Your task to perform on an android device: check data usage Image 0: 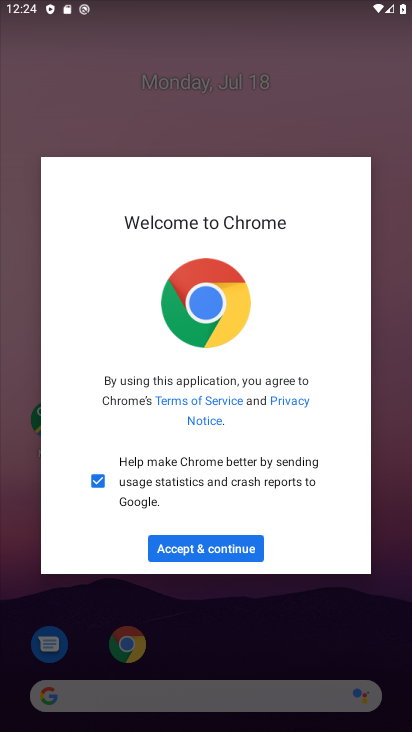
Step 0: press home button
Your task to perform on an android device: check data usage Image 1: 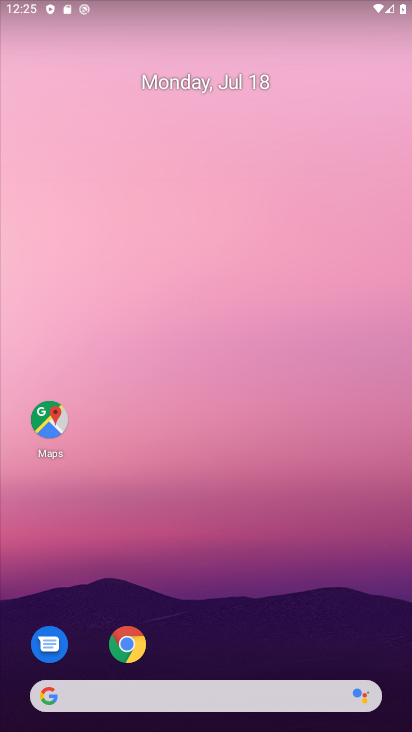
Step 1: drag from (343, 600) to (295, 18)
Your task to perform on an android device: check data usage Image 2: 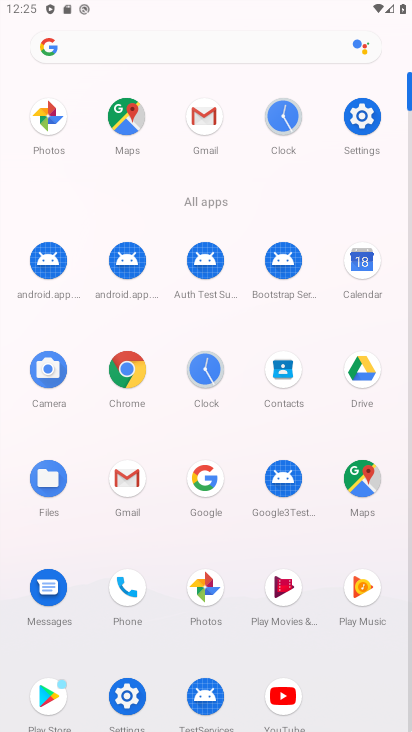
Step 2: drag from (360, 18) to (364, 416)
Your task to perform on an android device: check data usage Image 3: 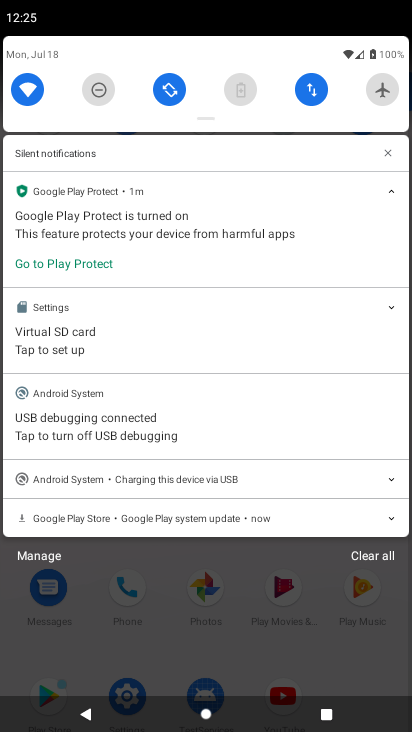
Step 3: click (318, 88)
Your task to perform on an android device: check data usage Image 4: 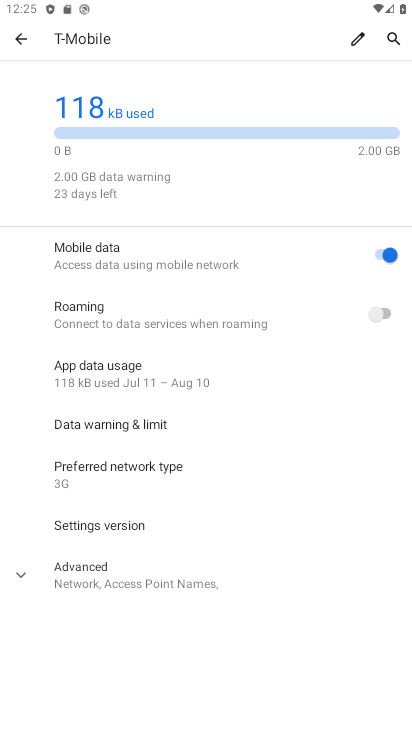
Step 4: task complete